Your task to perform on an android device: Open Chrome and go to settings Image 0: 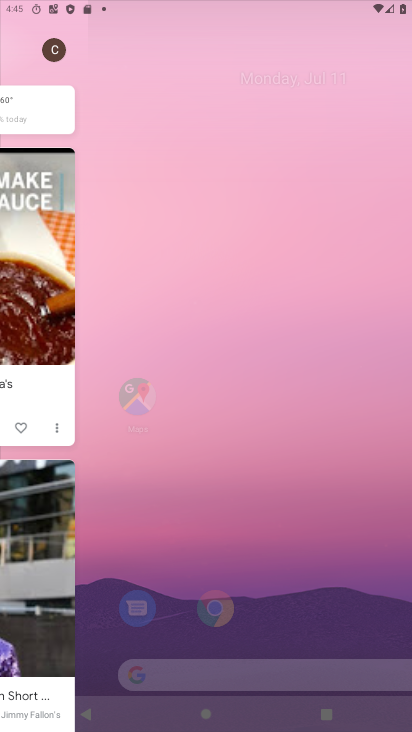
Step 0: press back button
Your task to perform on an android device: Open Chrome and go to settings Image 1: 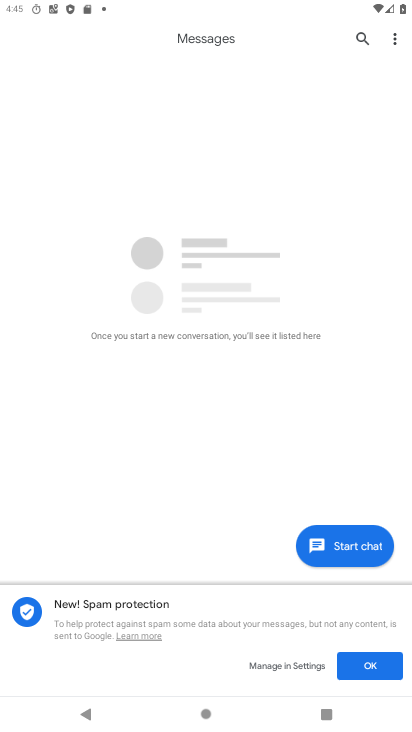
Step 1: press home button
Your task to perform on an android device: Open Chrome and go to settings Image 2: 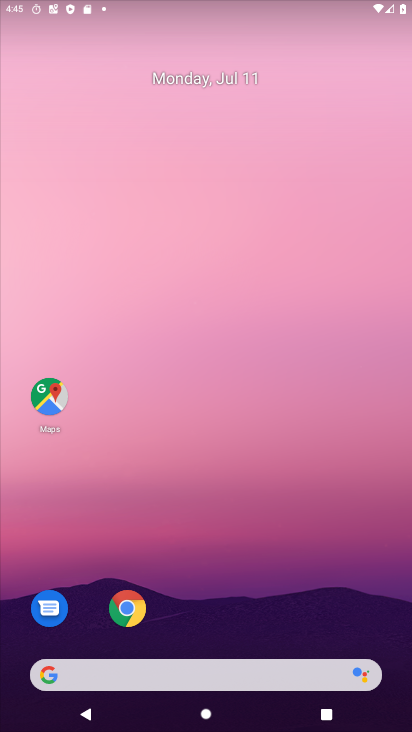
Step 2: press back button
Your task to perform on an android device: Open Chrome and go to settings Image 3: 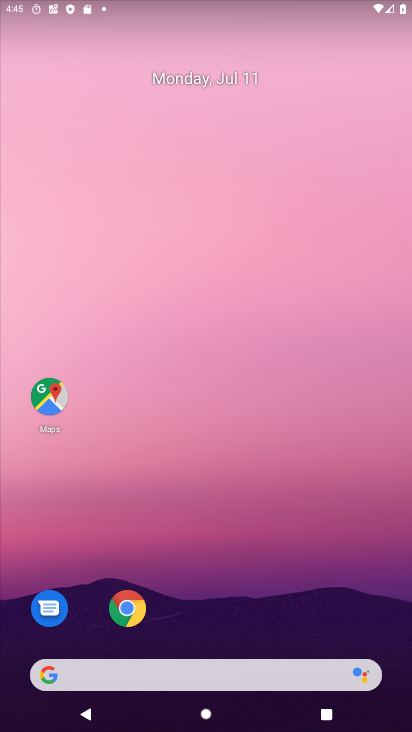
Step 3: press home button
Your task to perform on an android device: Open Chrome and go to settings Image 4: 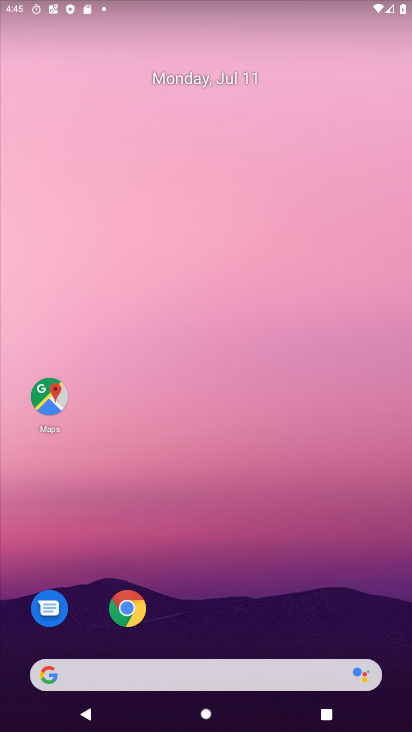
Step 4: drag from (294, 433) to (110, 27)
Your task to perform on an android device: Open Chrome and go to settings Image 5: 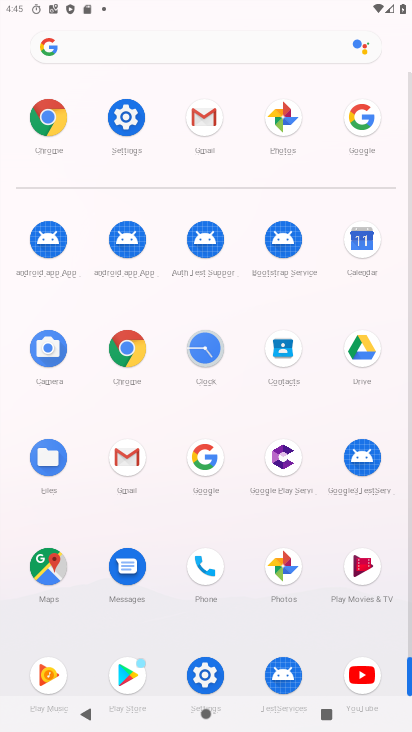
Step 5: click (128, 109)
Your task to perform on an android device: Open Chrome and go to settings Image 6: 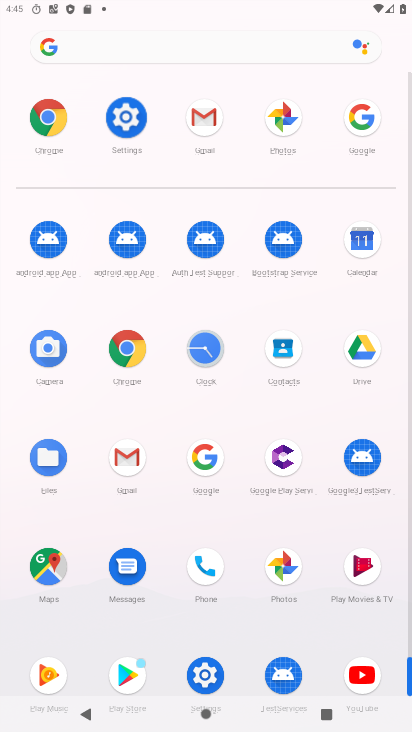
Step 6: click (127, 110)
Your task to perform on an android device: Open Chrome and go to settings Image 7: 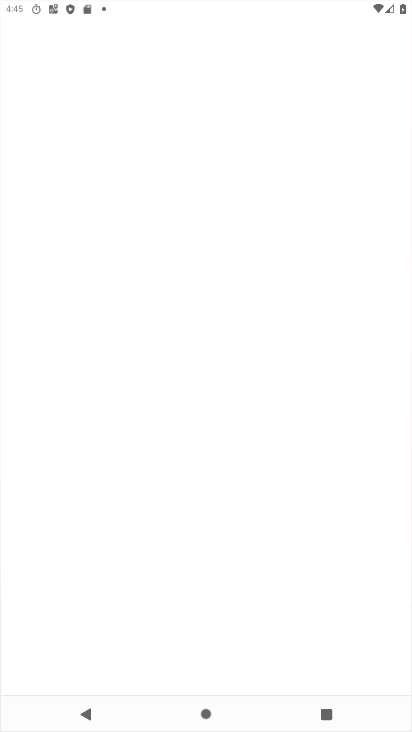
Step 7: click (127, 110)
Your task to perform on an android device: Open Chrome and go to settings Image 8: 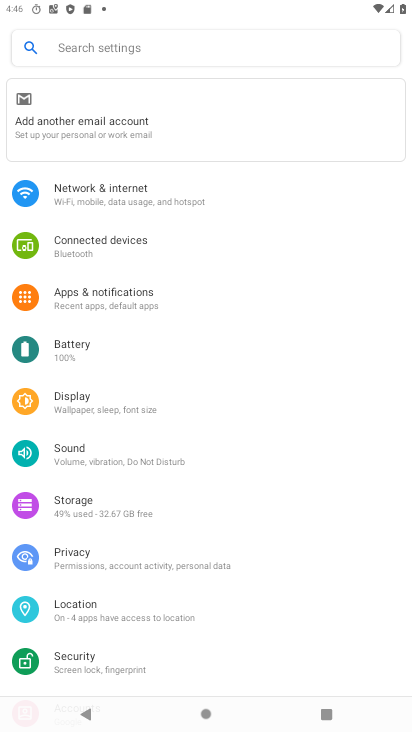
Step 8: drag from (108, 653) to (94, 257)
Your task to perform on an android device: Open Chrome and go to settings Image 9: 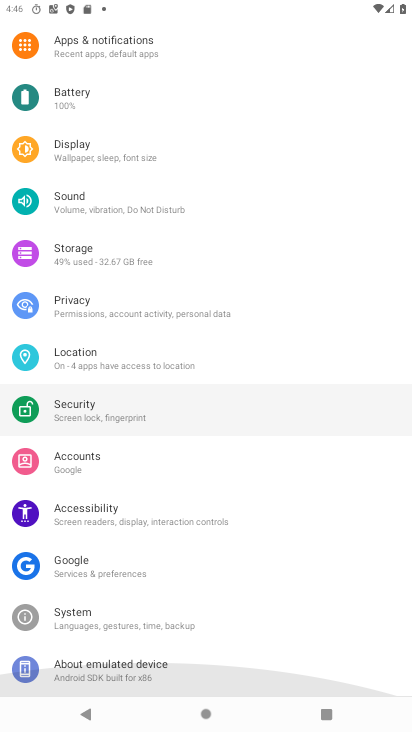
Step 9: drag from (126, 501) to (94, 313)
Your task to perform on an android device: Open Chrome and go to settings Image 10: 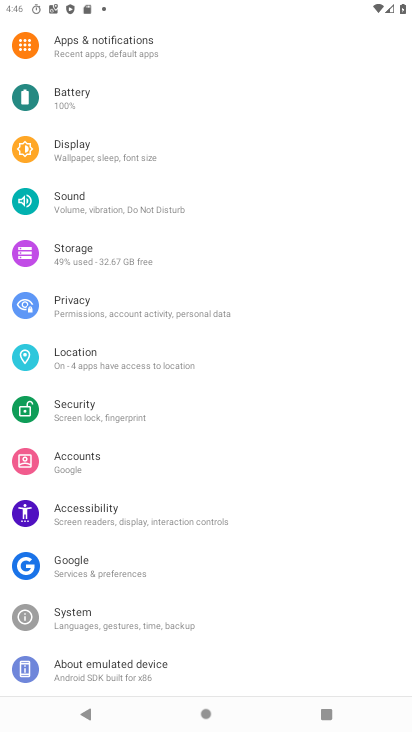
Step 10: drag from (95, 584) to (36, 151)
Your task to perform on an android device: Open Chrome and go to settings Image 11: 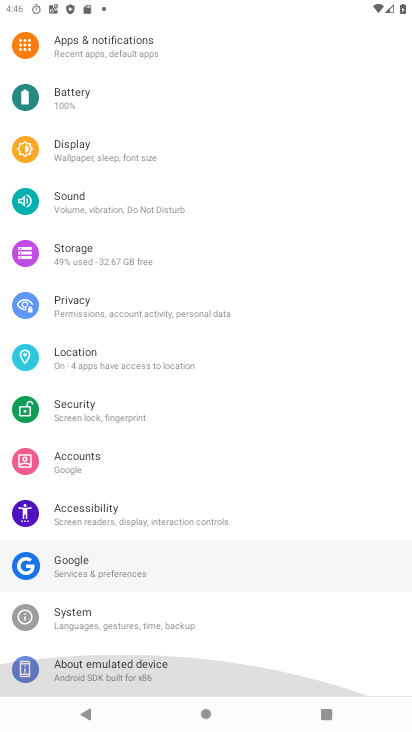
Step 11: drag from (156, 514) to (143, 173)
Your task to perform on an android device: Open Chrome and go to settings Image 12: 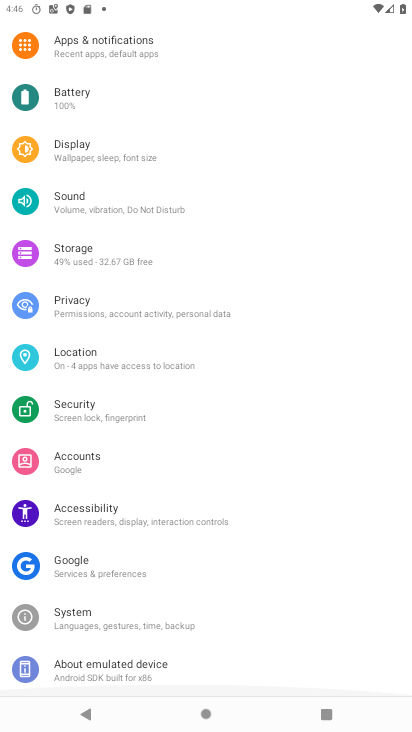
Step 12: drag from (149, 144) to (192, 452)
Your task to perform on an android device: Open Chrome and go to settings Image 13: 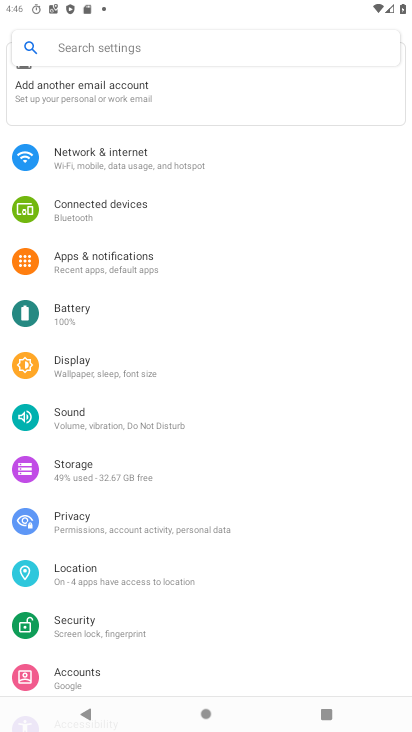
Step 13: drag from (154, 213) to (154, 537)
Your task to perform on an android device: Open Chrome and go to settings Image 14: 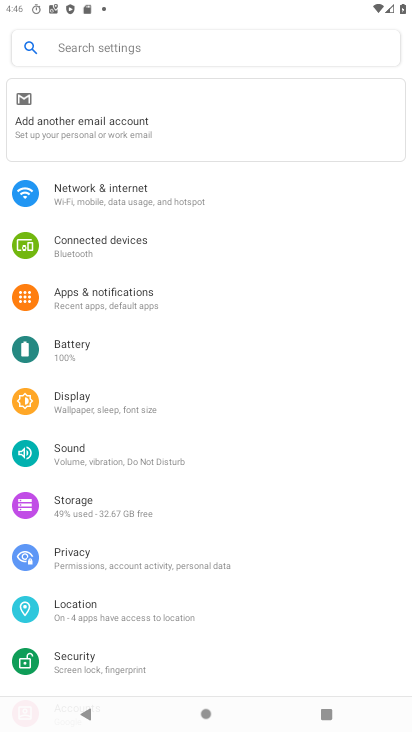
Step 14: press back button
Your task to perform on an android device: Open Chrome and go to settings Image 15: 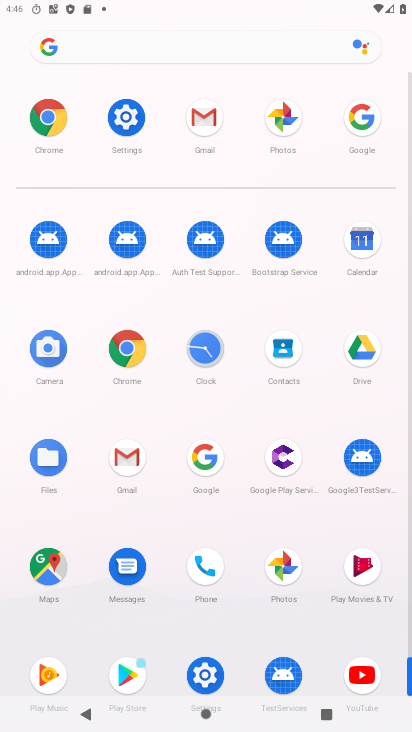
Step 15: click (121, 366)
Your task to perform on an android device: Open Chrome and go to settings Image 16: 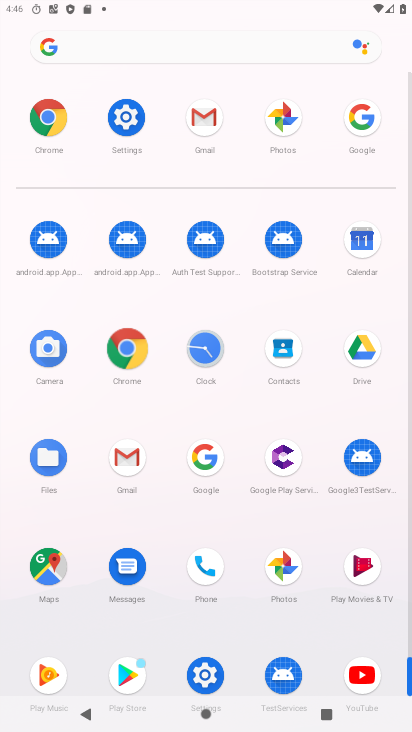
Step 16: click (129, 350)
Your task to perform on an android device: Open Chrome and go to settings Image 17: 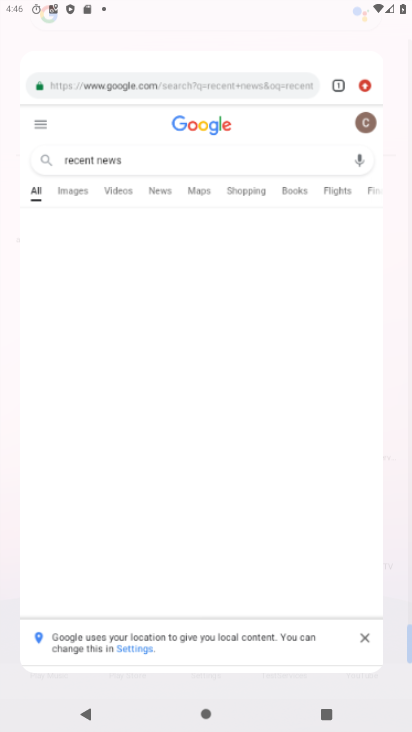
Step 17: click (131, 350)
Your task to perform on an android device: Open Chrome and go to settings Image 18: 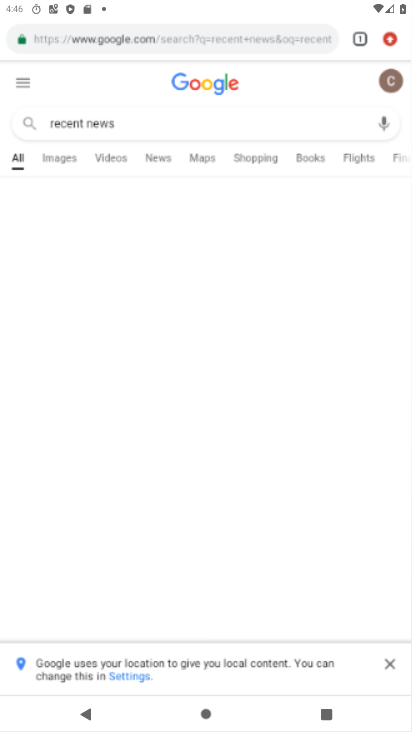
Step 18: click (133, 348)
Your task to perform on an android device: Open Chrome and go to settings Image 19: 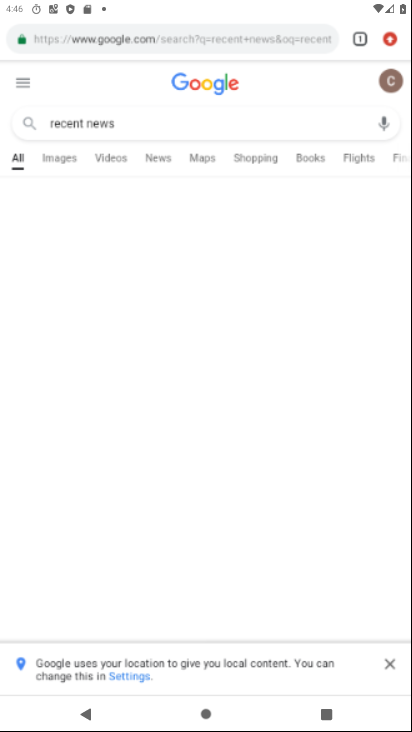
Step 19: click (133, 348)
Your task to perform on an android device: Open Chrome and go to settings Image 20: 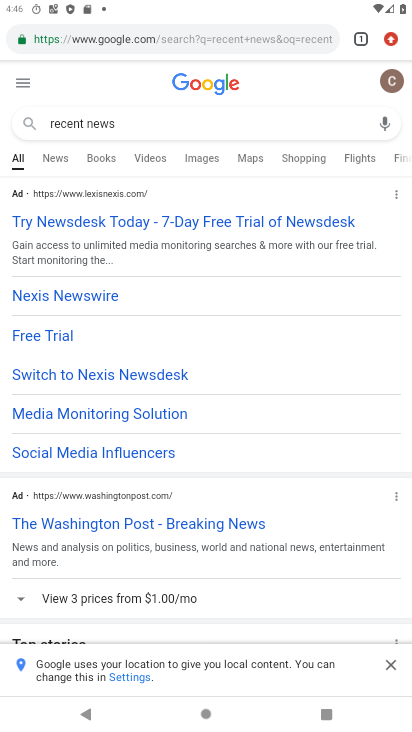
Step 20: drag from (387, 37) to (246, 467)
Your task to perform on an android device: Open Chrome and go to settings Image 21: 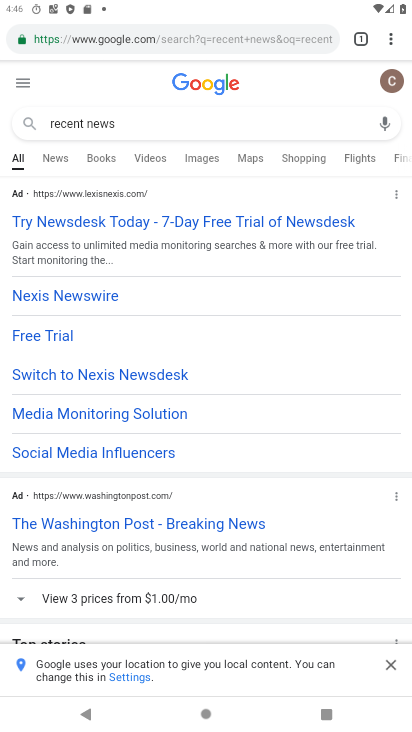
Step 21: click (246, 467)
Your task to perform on an android device: Open Chrome and go to settings Image 22: 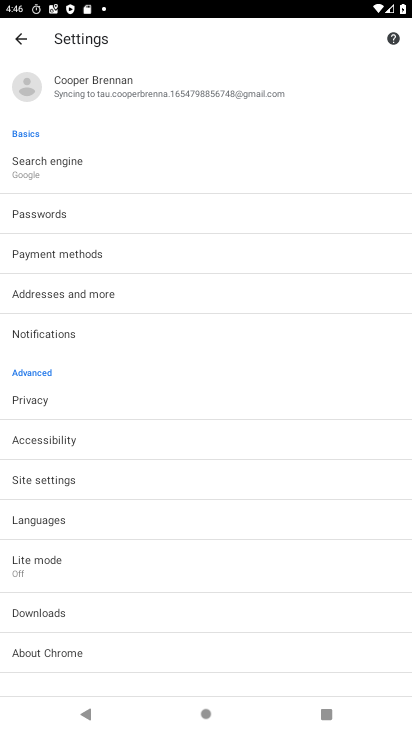
Step 22: task complete